Your task to perform on an android device: Open Google Chrome Image 0: 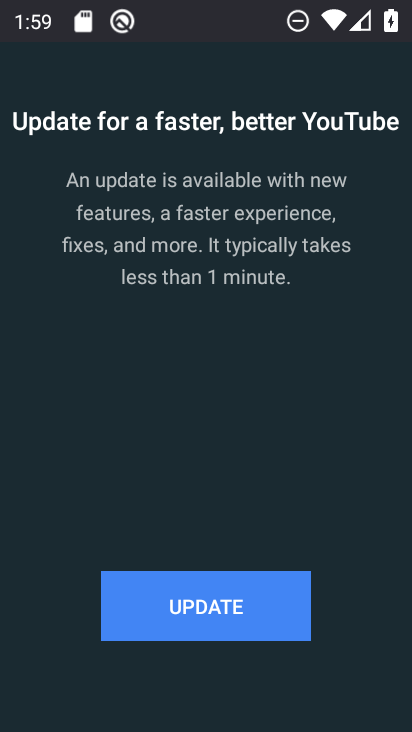
Step 0: press home button
Your task to perform on an android device: Open Google Chrome Image 1: 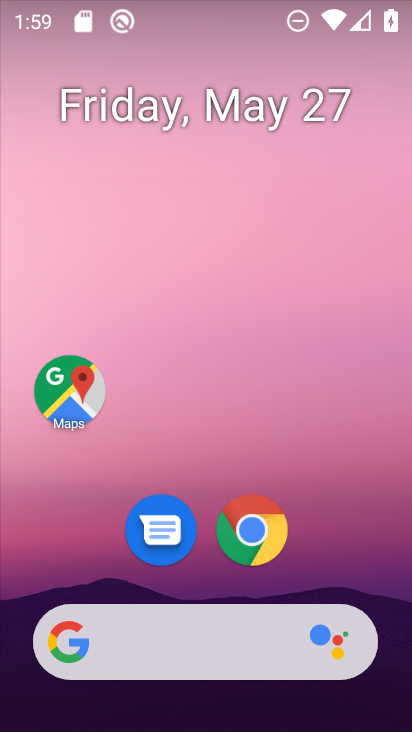
Step 1: click (250, 530)
Your task to perform on an android device: Open Google Chrome Image 2: 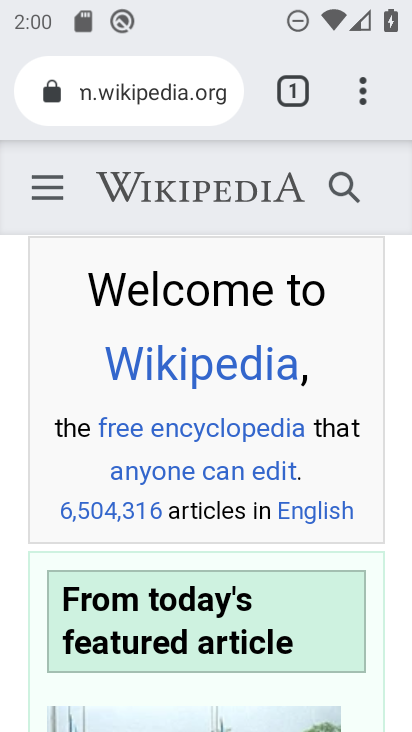
Step 2: task complete